Your task to perform on an android device: open app "Duolingo: language lessons" (install if not already installed) and enter user name: "omens@gmail.com" and password: "casks" Image 0: 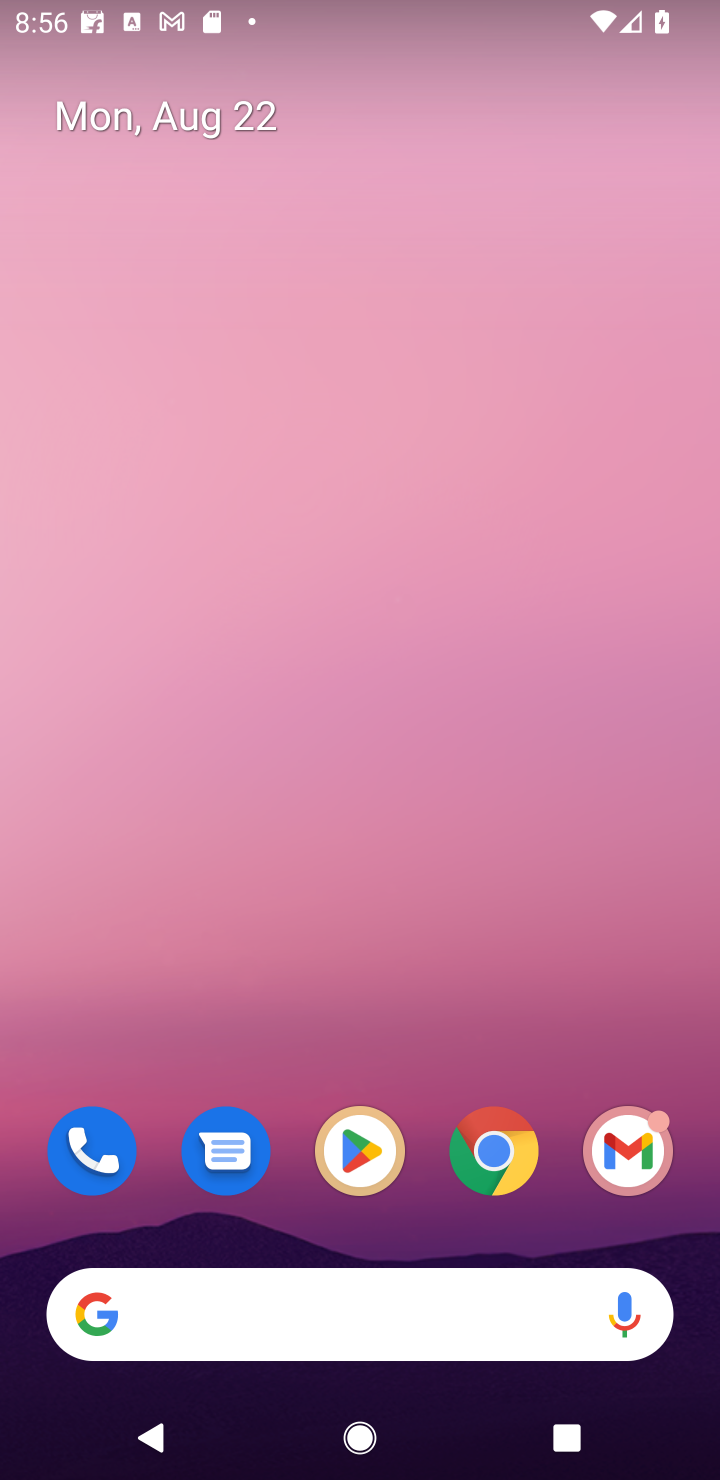
Step 0: click (338, 1146)
Your task to perform on an android device: open app "Duolingo: language lessons" (install if not already installed) and enter user name: "omens@gmail.com" and password: "casks" Image 1: 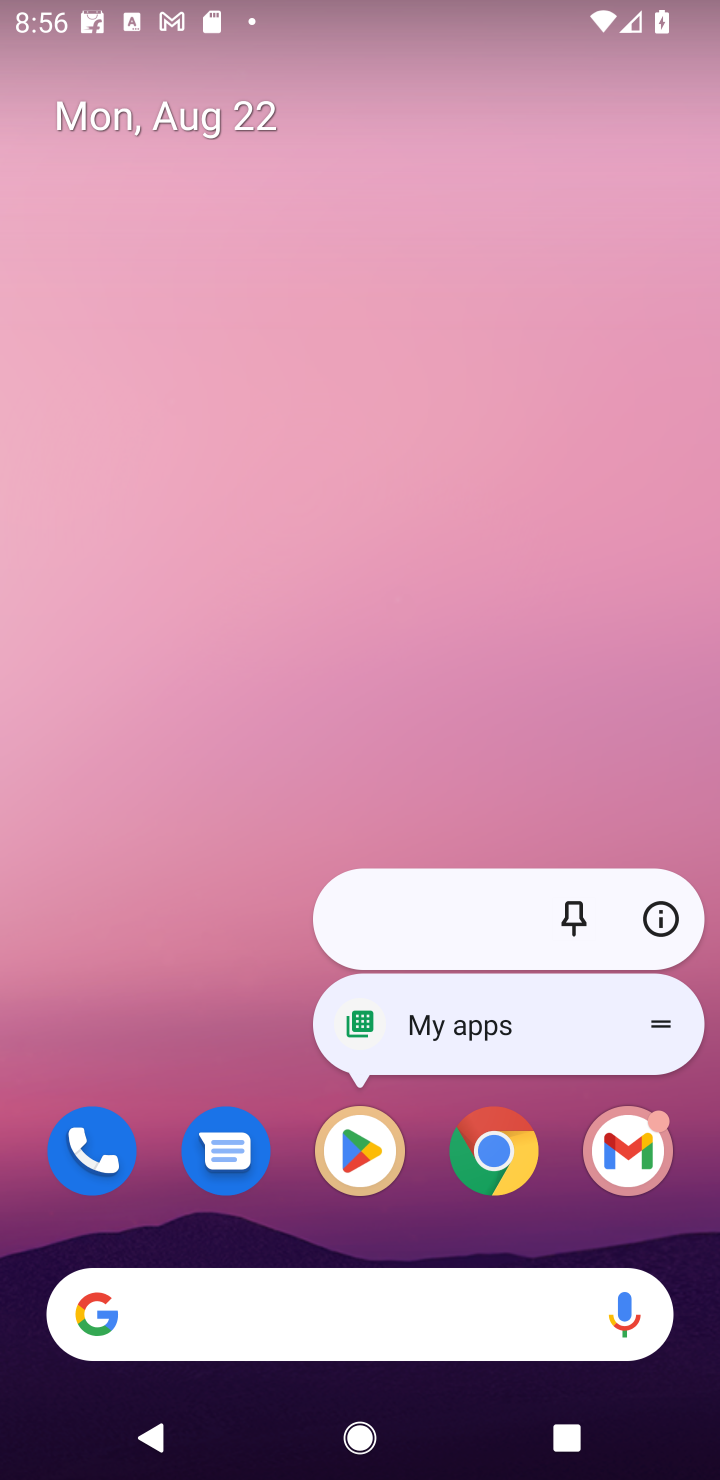
Step 1: click (354, 1154)
Your task to perform on an android device: open app "Duolingo: language lessons" (install if not already installed) and enter user name: "omens@gmail.com" and password: "casks" Image 2: 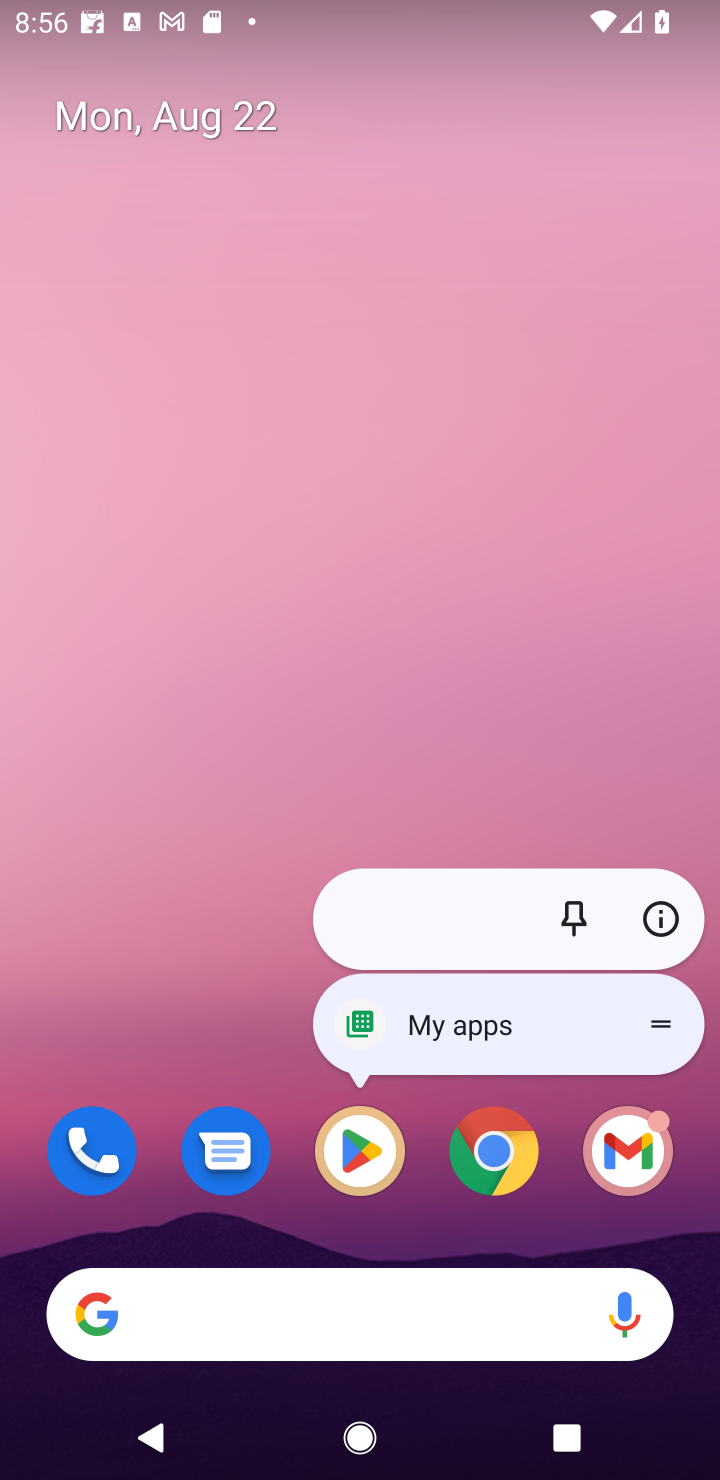
Step 2: click (366, 1160)
Your task to perform on an android device: open app "Duolingo: language lessons" (install if not already installed) and enter user name: "omens@gmail.com" and password: "casks" Image 3: 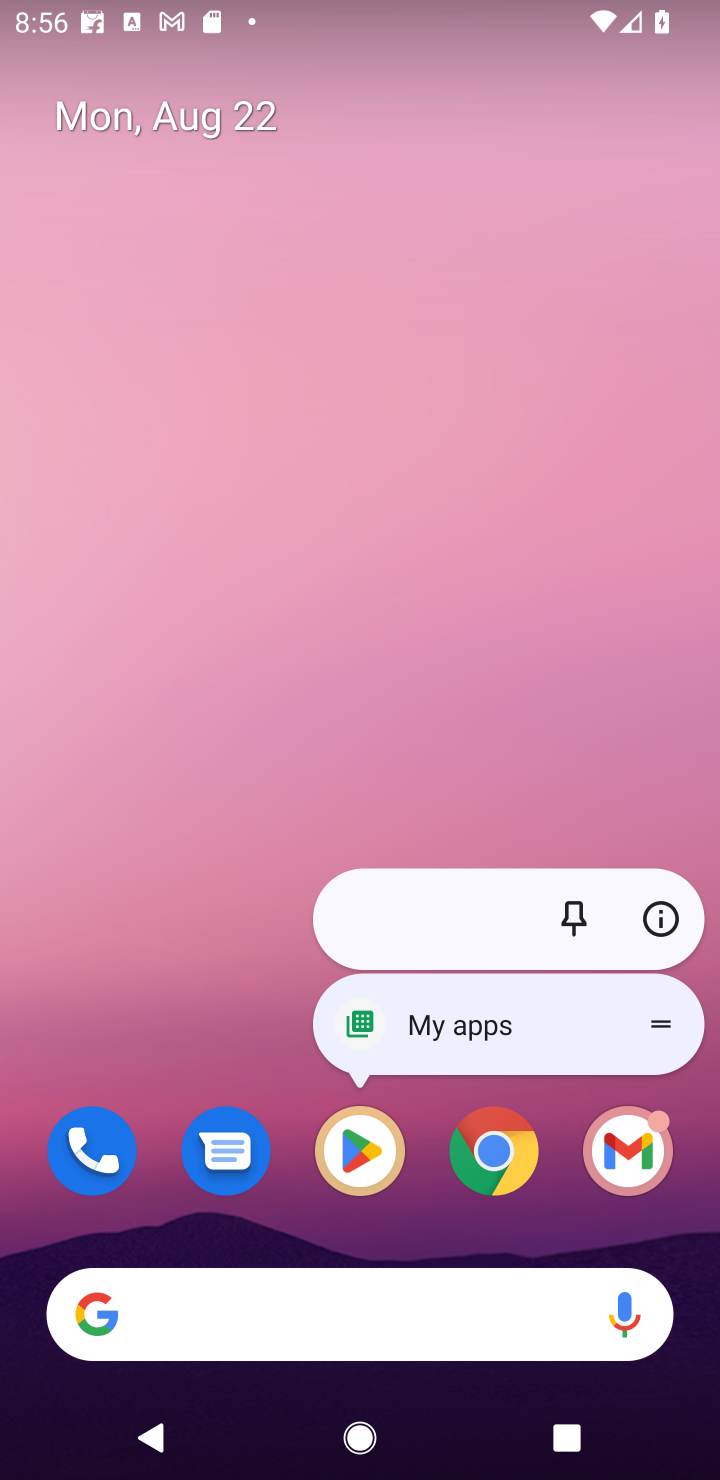
Step 3: click (355, 1150)
Your task to perform on an android device: open app "Duolingo: language lessons" (install if not already installed) and enter user name: "omens@gmail.com" and password: "casks" Image 4: 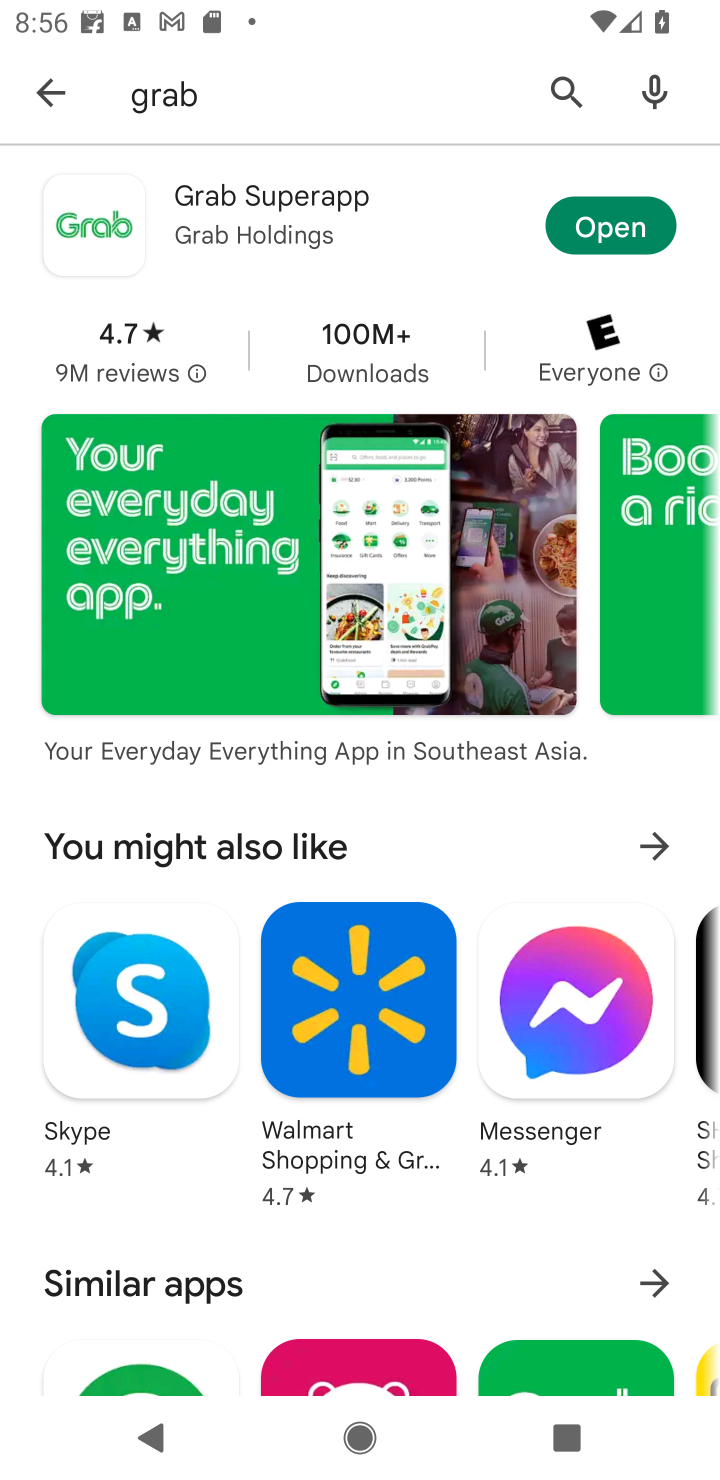
Step 4: click (566, 88)
Your task to perform on an android device: open app "Duolingo: language lessons" (install if not already installed) and enter user name: "omens@gmail.com" and password: "casks" Image 5: 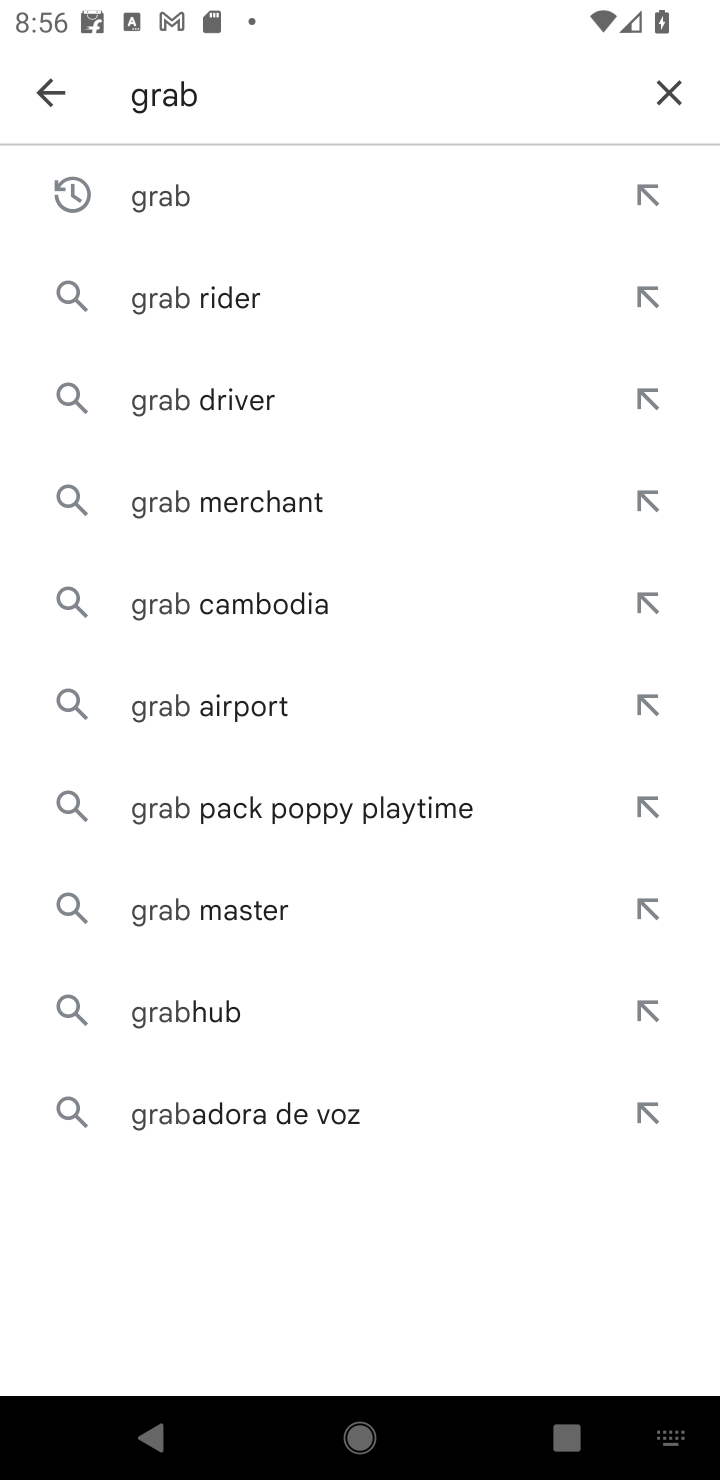
Step 5: click (661, 92)
Your task to perform on an android device: open app "Duolingo: language lessons" (install if not already installed) and enter user name: "omens@gmail.com" and password: "casks" Image 6: 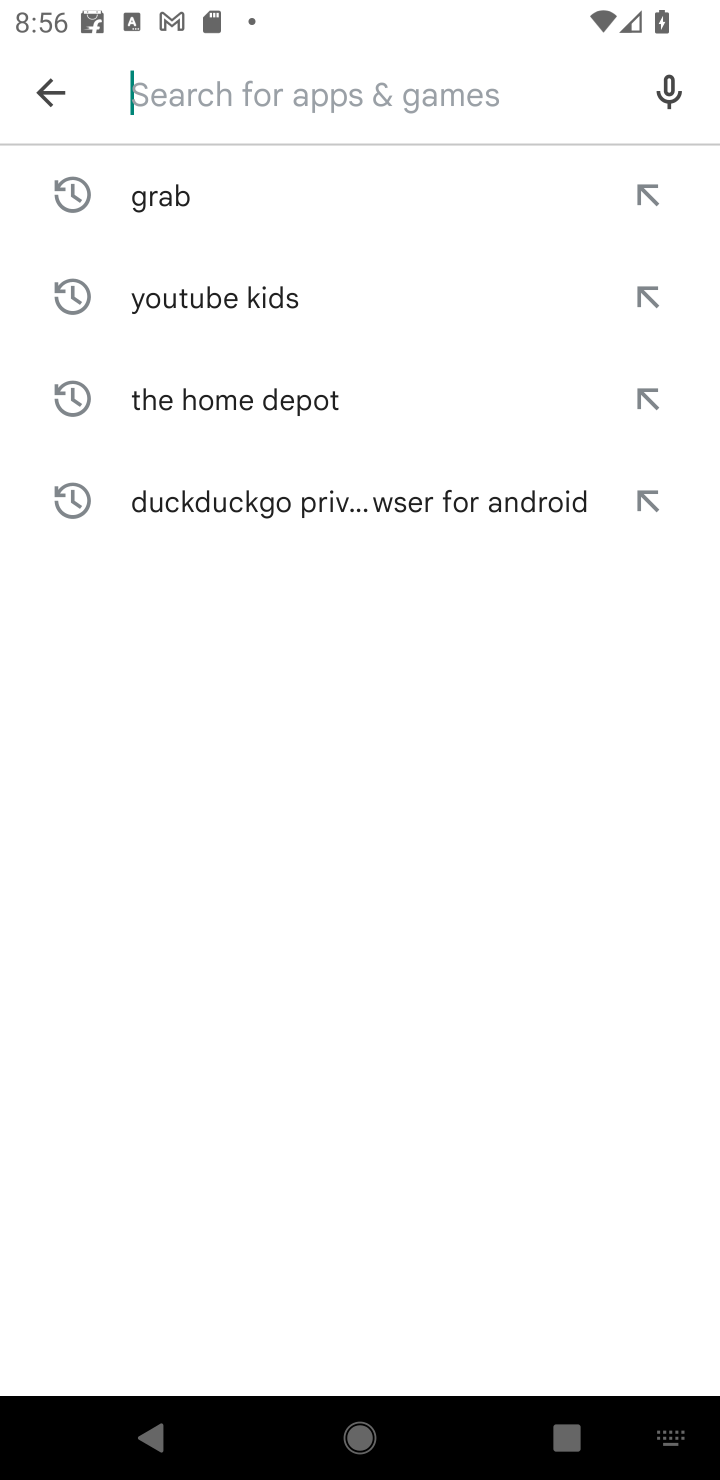
Step 6: type "Duolingo: language lessons"
Your task to perform on an android device: open app "Duolingo: language lessons" (install if not already installed) and enter user name: "omens@gmail.com" and password: "casks" Image 7: 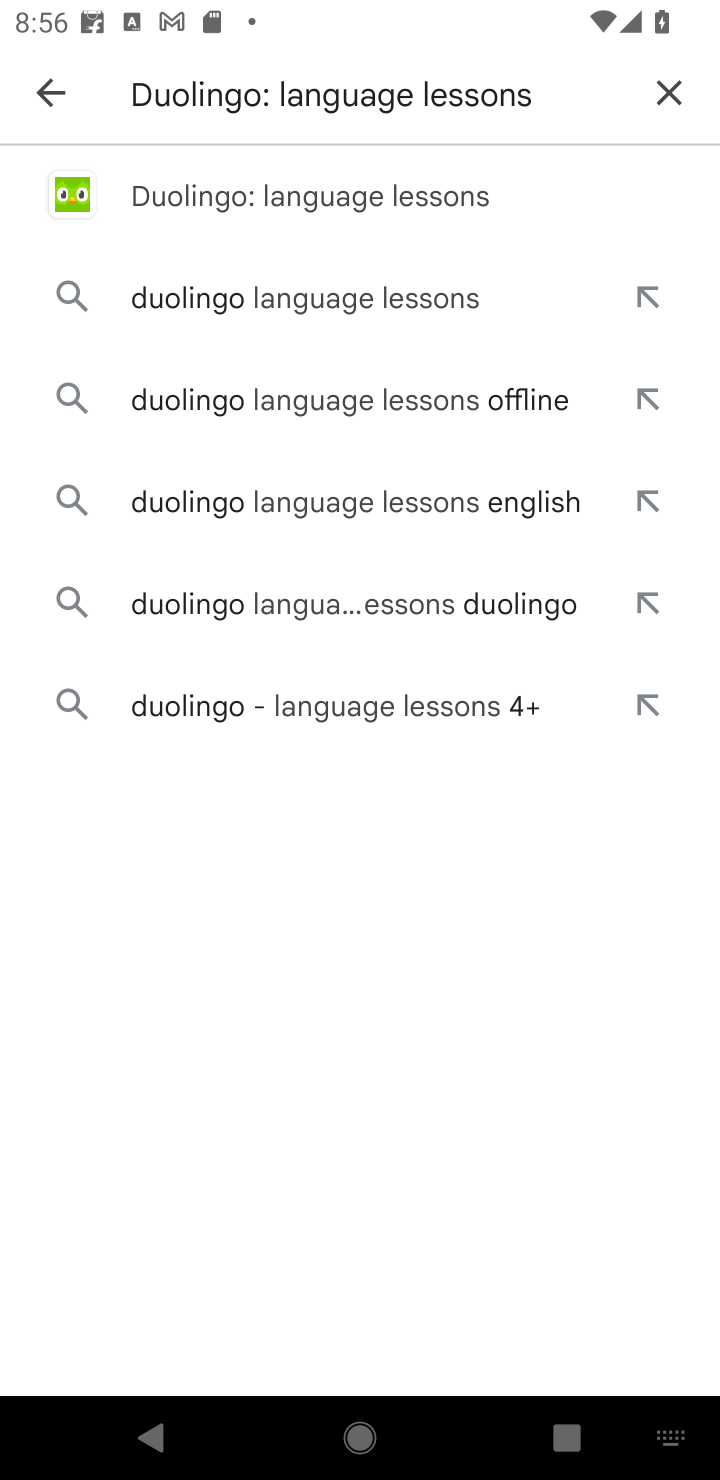
Step 7: click (228, 173)
Your task to perform on an android device: open app "Duolingo: language lessons" (install if not already installed) and enter user name: "omens@gmail.com" and password: "casks" Image 8: 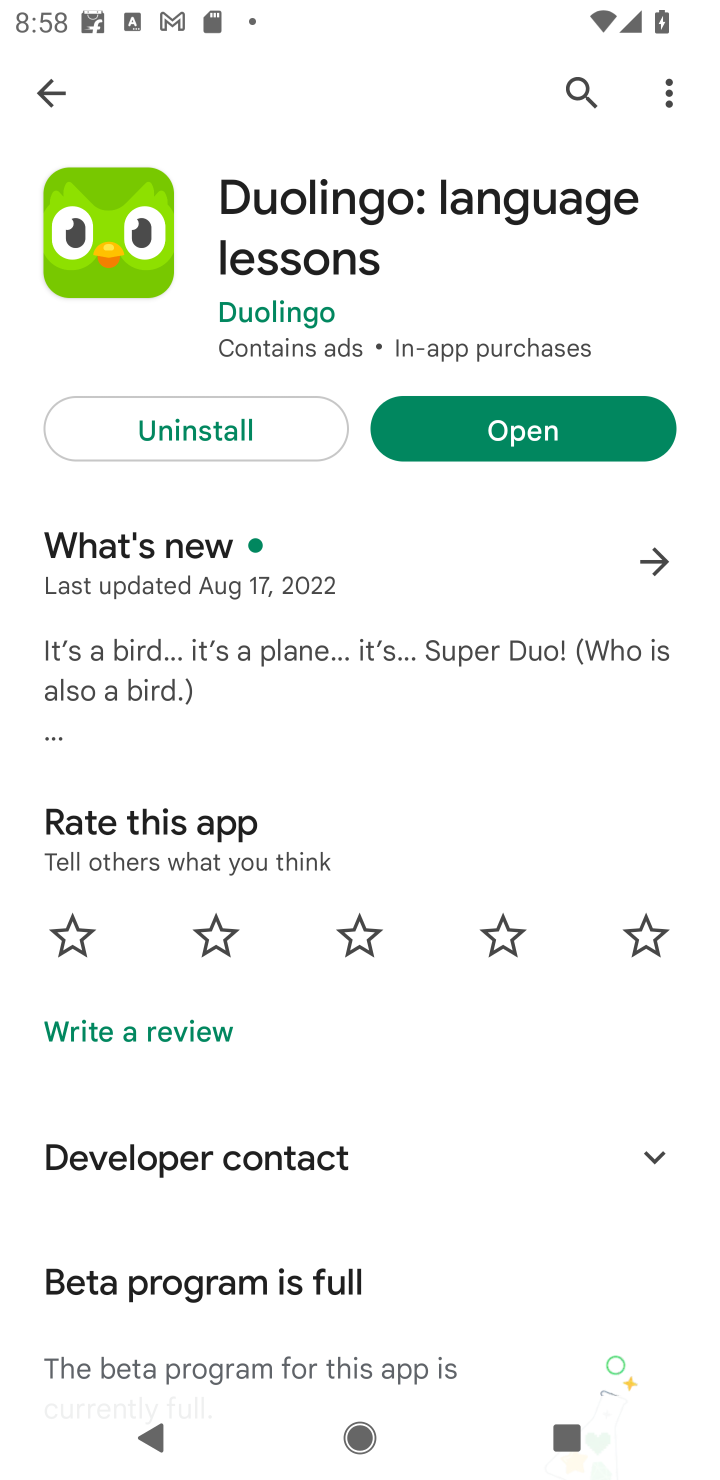
Step 8: click (562, 424)
Your task to perform on an android device: open app "Duolingo: language lessons" (install if not already installed) and enter user name: "omens@gmail.com" and password: "casks" Image 9: 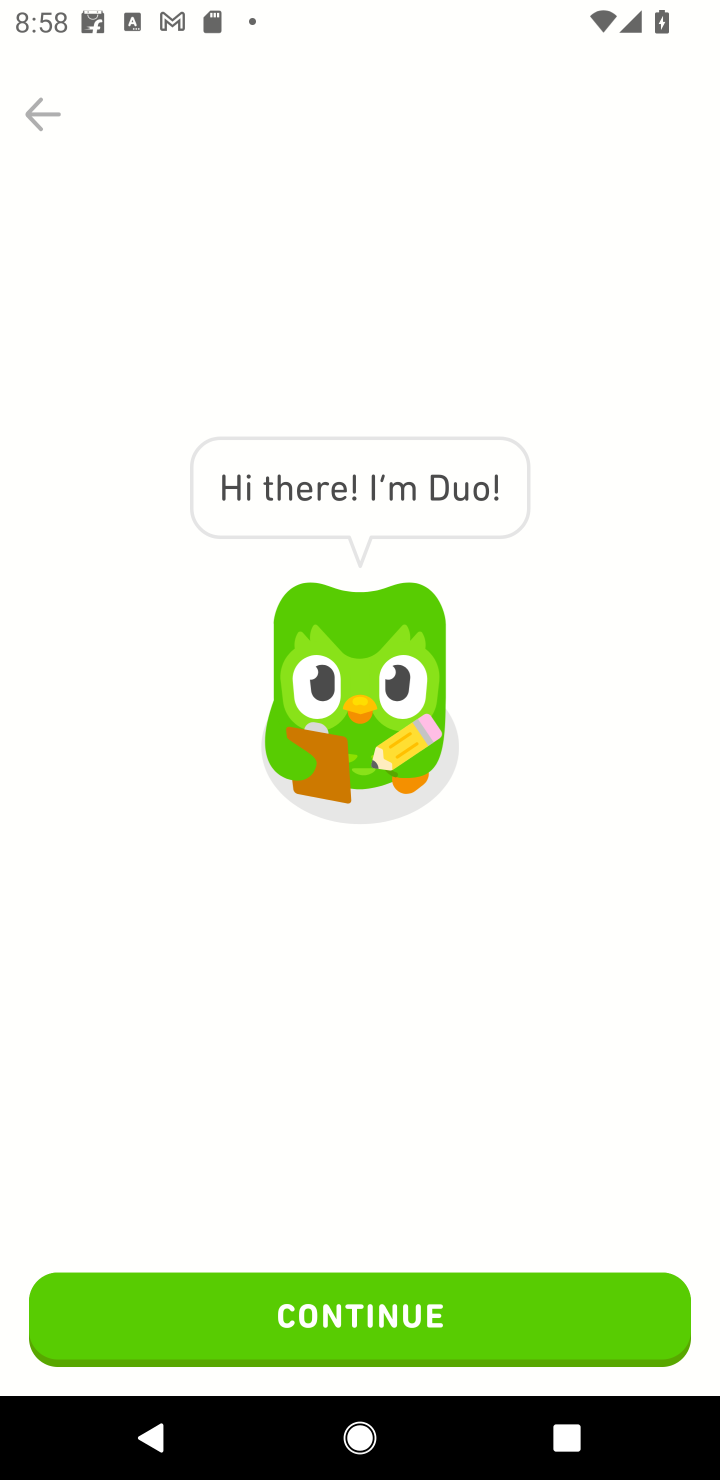
Step 9: click (422, 1327)
Your task to perform on an android device: open app "Duolingo: language lessons" (install if not already installed) and enter user name: "omens@gmail.com" and password: "casks" Image 10: 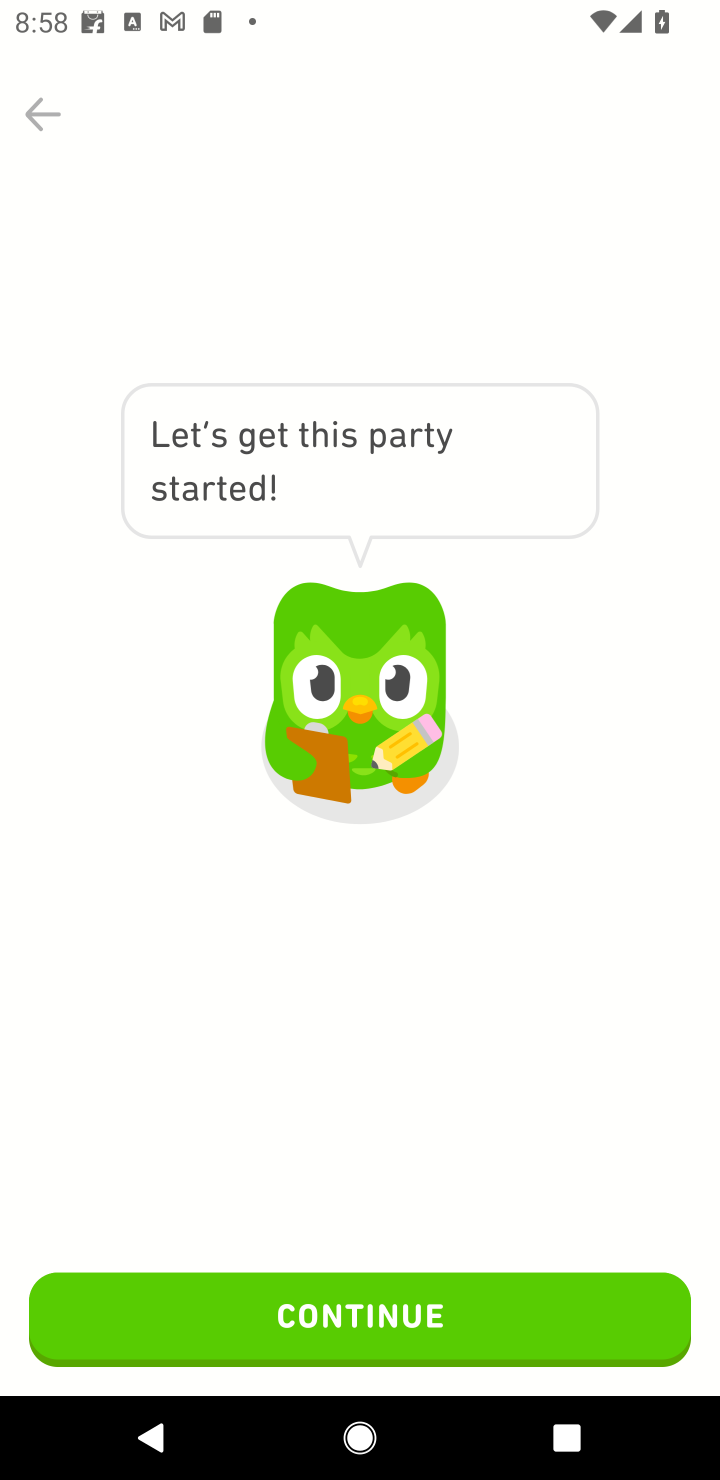
Step 10: task complete